Your task to perform on an android device: toggle data saver in the chrome app Image 0: 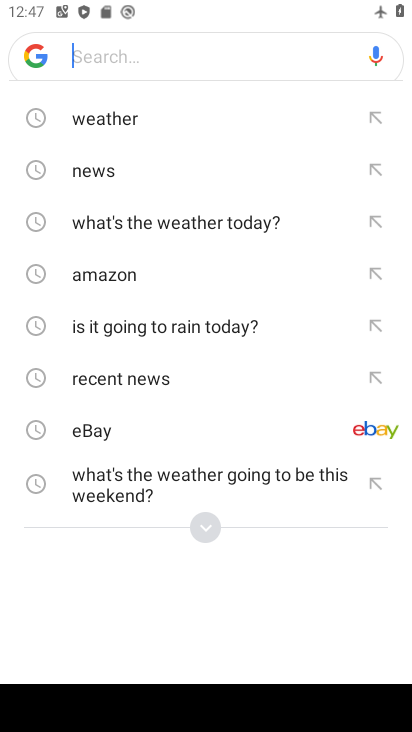
Step 0: press home button
Your task to perform on an android device: toggle data saver in the chrome app Image 1: 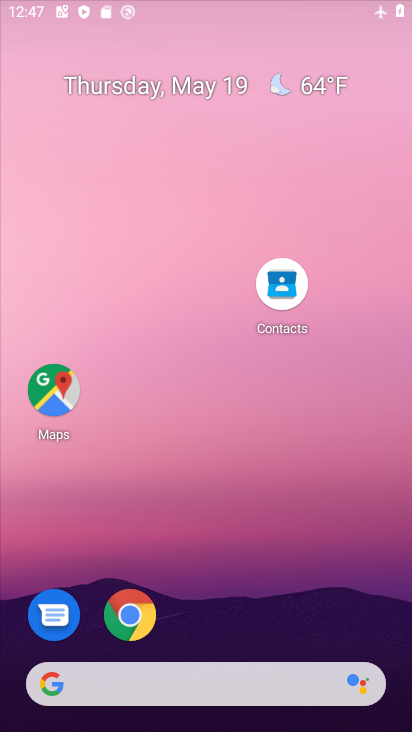
Step 1: drag from (226, 607) to (276, 97)
Your task to perform on an android device: toggle data saver in the chrome app Image 2: 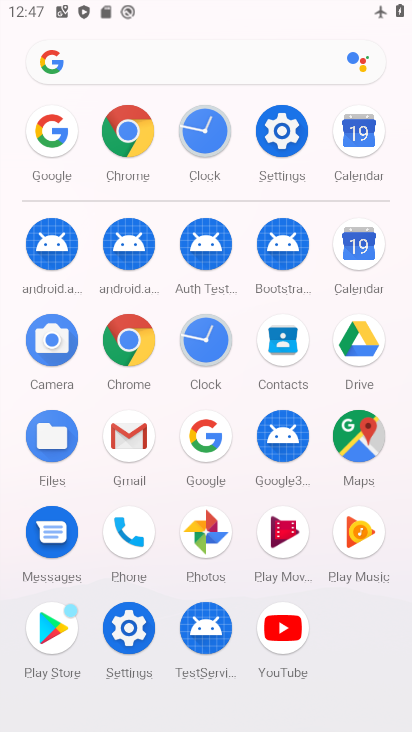
Step 2: click (135, 338)
Your task to perform on an android device: toggle data saver in the chrome app Image 3: 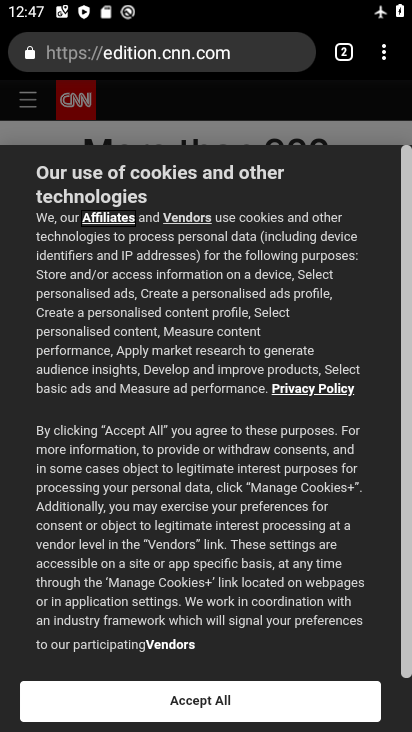
Step 3: click (398, 56)
Your task to perform on an android device: toggle data saver in the chrome app Image 4: 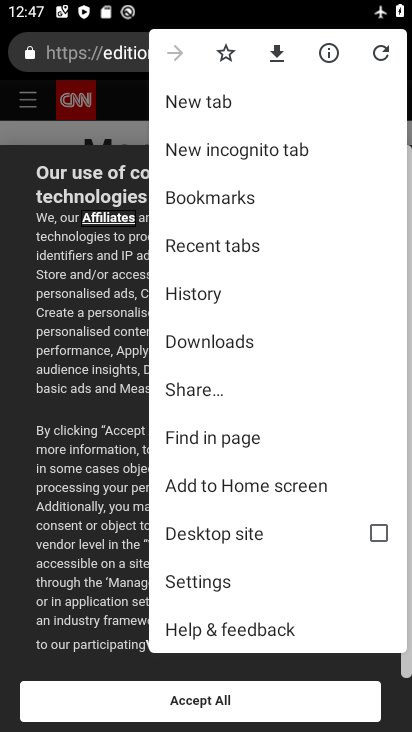
Step 4: click (238, 584)
Your task to perform on an android device: toggle data saver in the chrome app Image 5: 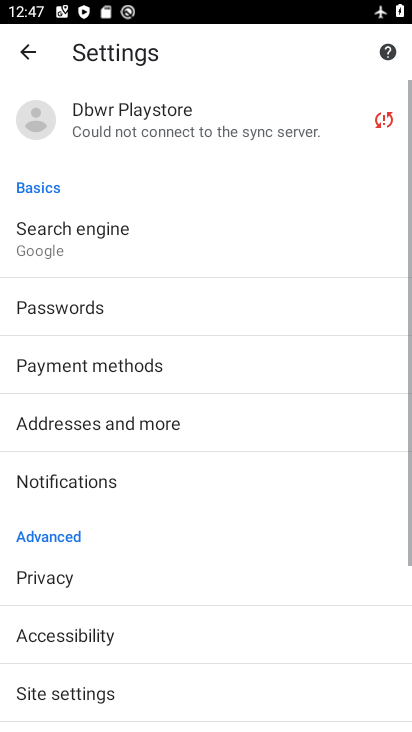
Step 5: drag from (150, 615) to (221, 238)
Your task to perform on an android device: toggle data saver in the chrome app Image 6: 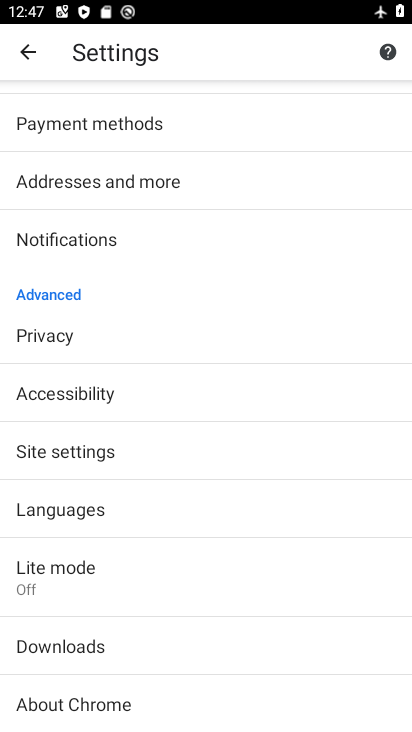
Step 6: click (145, 586)
Your task to perform on an android device: toggle data saver in the chrome app Image 7: 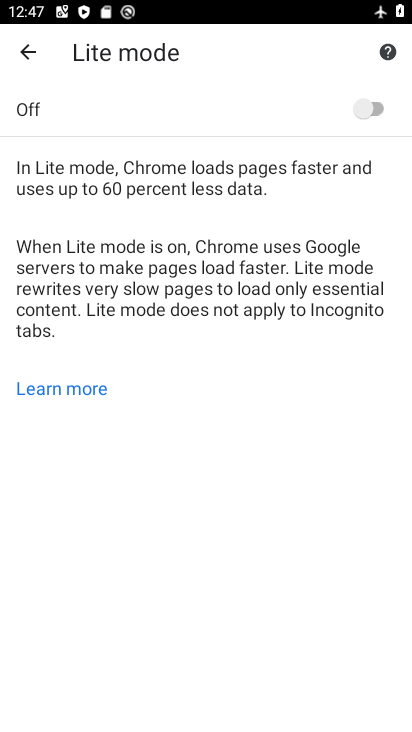
Step 7: click (367, 111)
Your task to perform on an android device: toggle data saver in the chrome app Image 8: 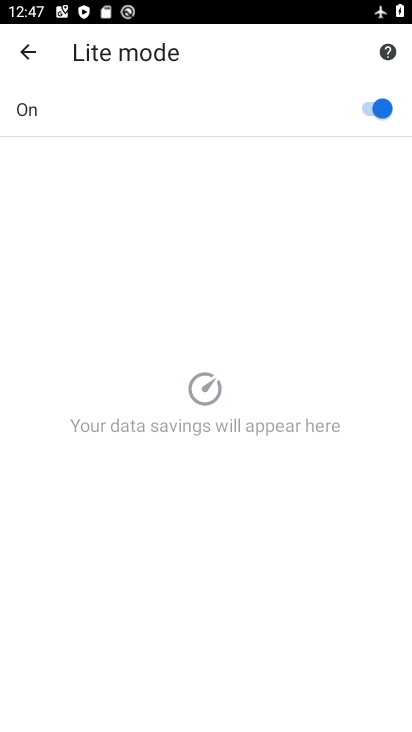
Step 8: task complete